Your task to perform on an android device: star an email in the gmail app Image 0: 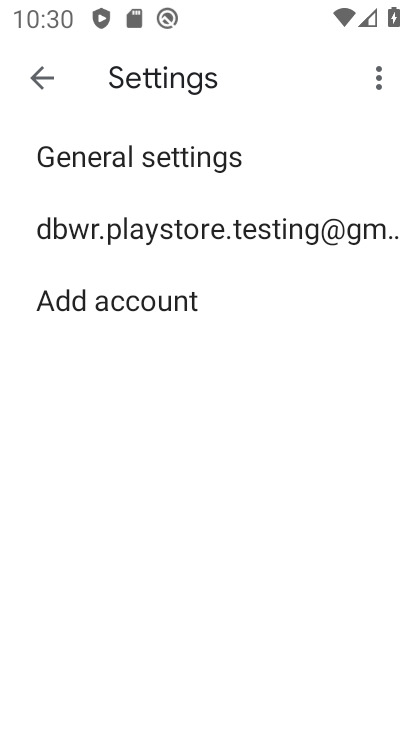
Step 0: press home button
Your task to perform on an android device: star an email in the gmail app Image 1: 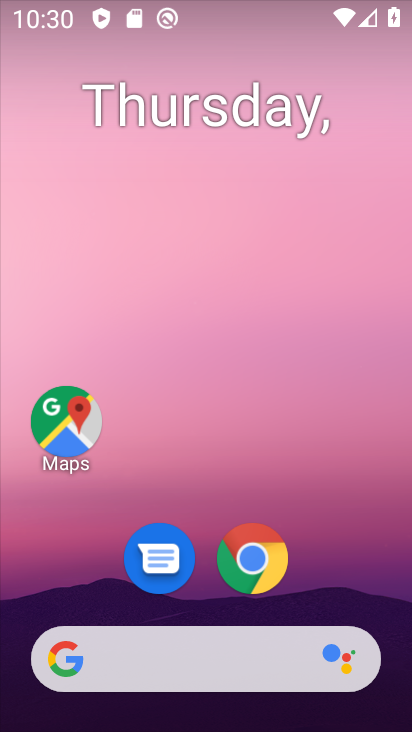
Step 1: drag from (323, 599) to (363, 114)
Your task to perform on an android device: star an email in the gmail app Image 2: 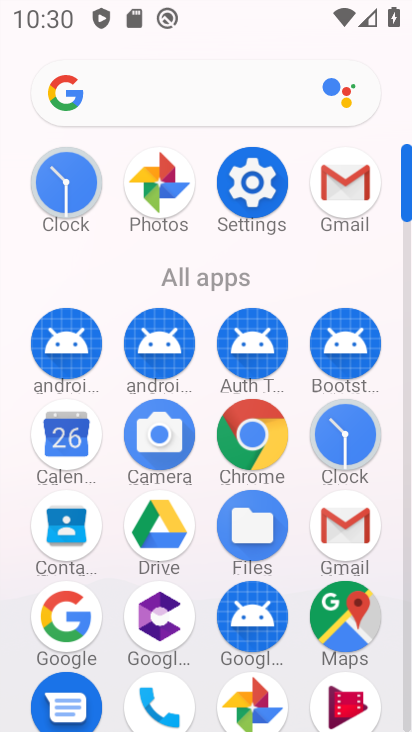
Step 2: click (343, 178)
Your task to perform on an android device: star an email in the gmail app Image 3: 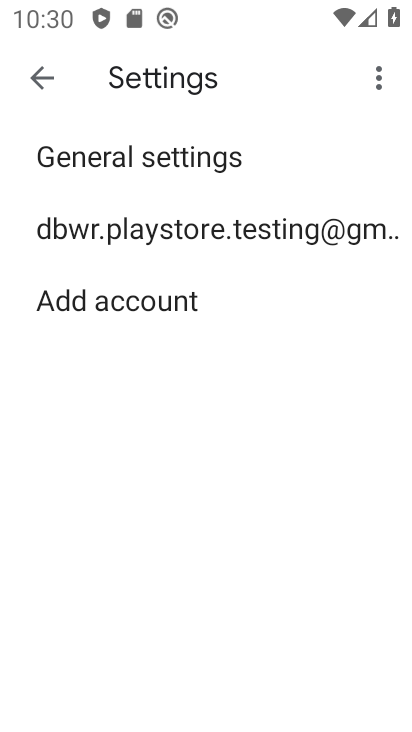
Step 3: press back button
Your task to perform on an android device: star an email in the gmail app Image 4: 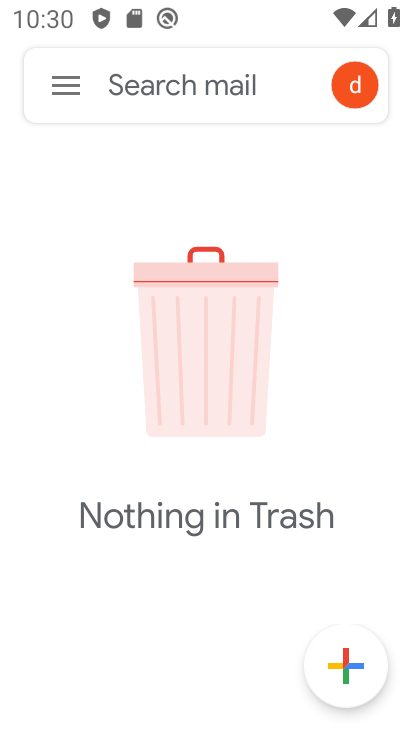
Step 4: click (64, 86)
Your task to perform on an android device: star an email in the gmail app Image 5: 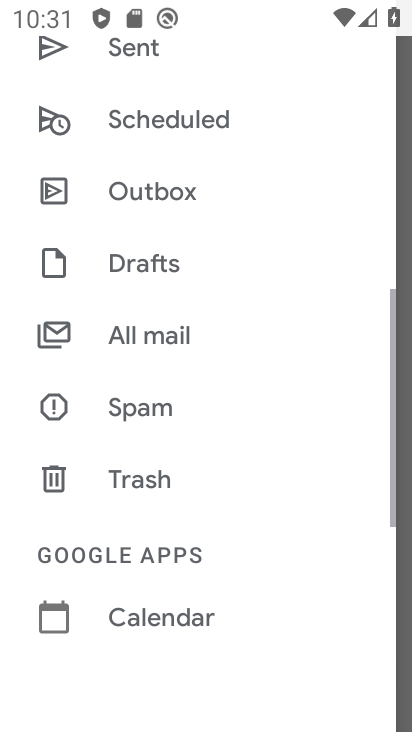
Step 5: click (183, 318)
Your task to perform on an android device: star an email in the gmail app Image 6: 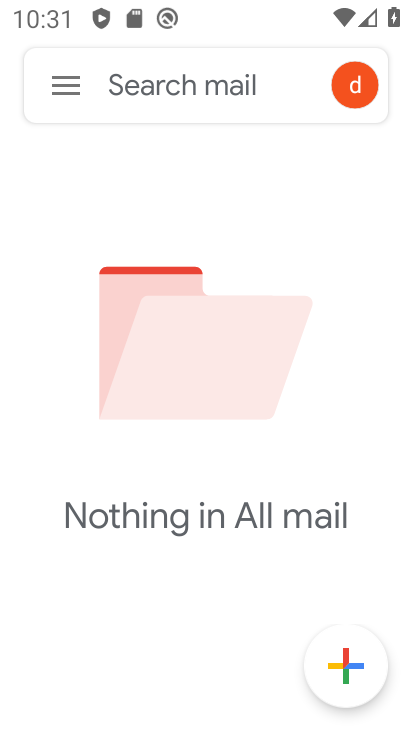
Step 6: task complete